Your task to perform on an android device: Open the stopwatch Image 0: 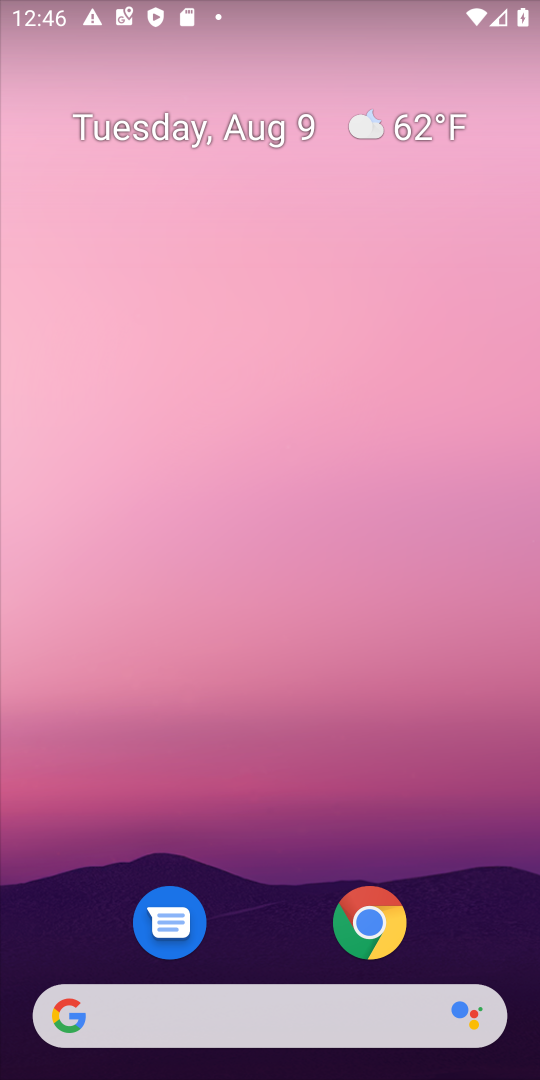
Step 0: drag from (274, 934) to (42, 31)
Your task to perform on an android device: Open the stopwatch Image 1: 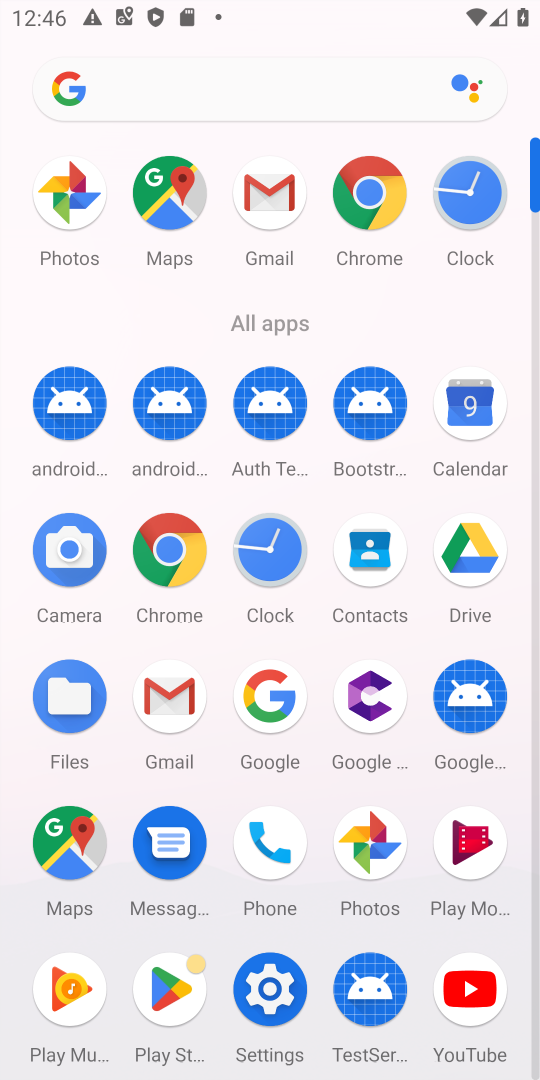
Step 1: click (265, 574)
Your task to perform on an android device: Open the stopwatch Image 2: 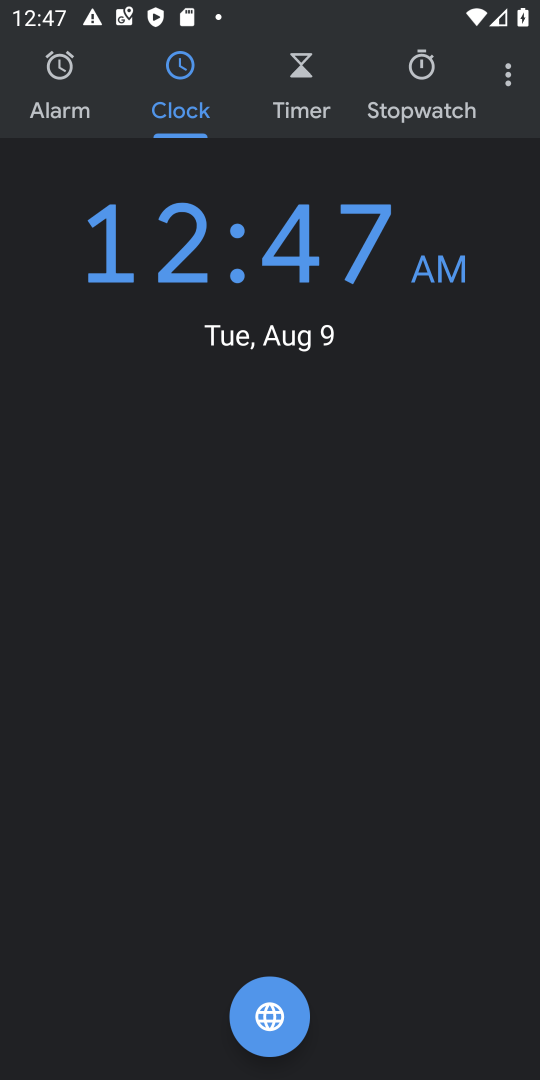
Step 2: click (418, 63)
Your task to perform on an android device: Open the stopwatch Image 3: 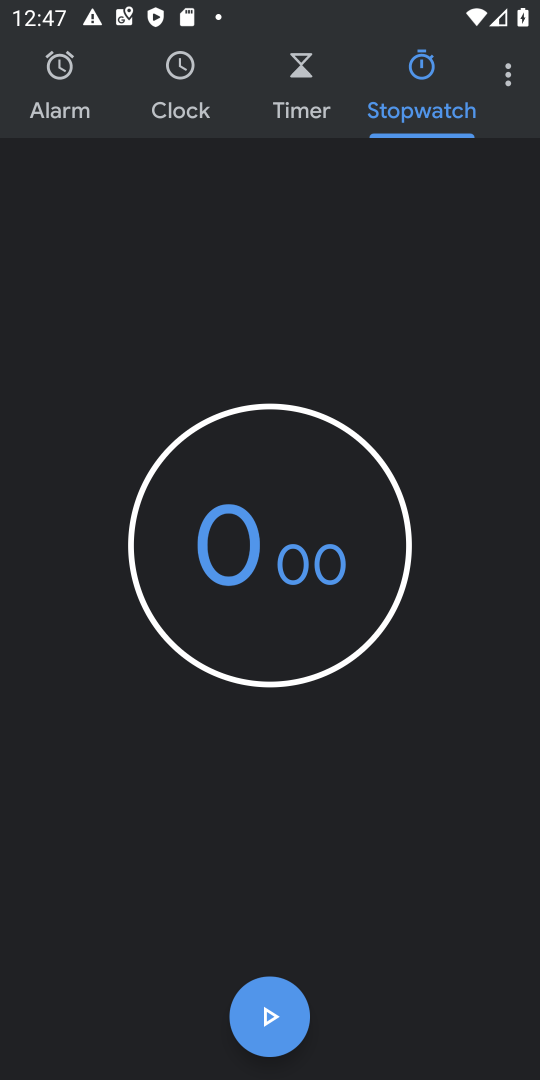
Step 3: task complete